Your task to perform on an android device: turn off translation in the chrome app Image 0: 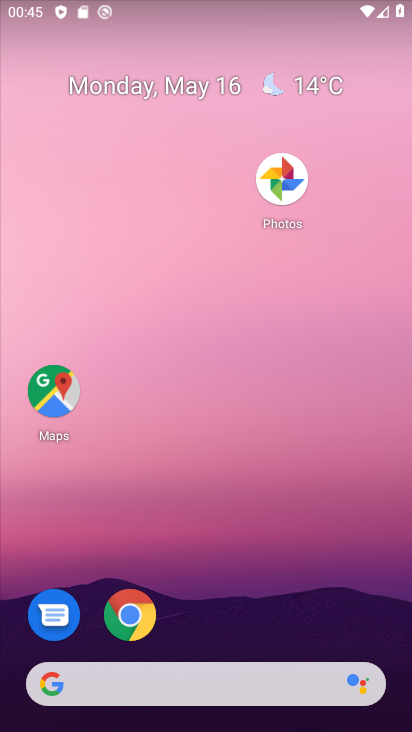
Step 0: drag from (365, 623) to (378, 160)
Your task to perform on an android device: turn off translation in the chrome app Image 1: 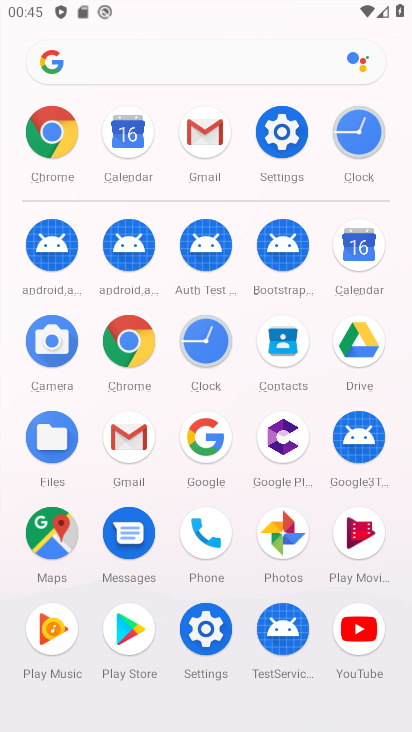
Step 1: click (127, 355)
Your task to perform on an android device: turn off translation in the chrome app Image 2: 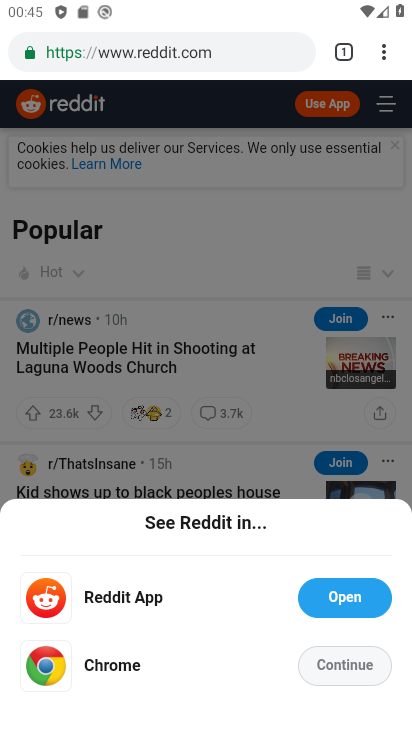
Step 2: drag from (388, 63) to (251, 645)
Your task to perform on an android device: turn off translation in the chrome app Image 3: 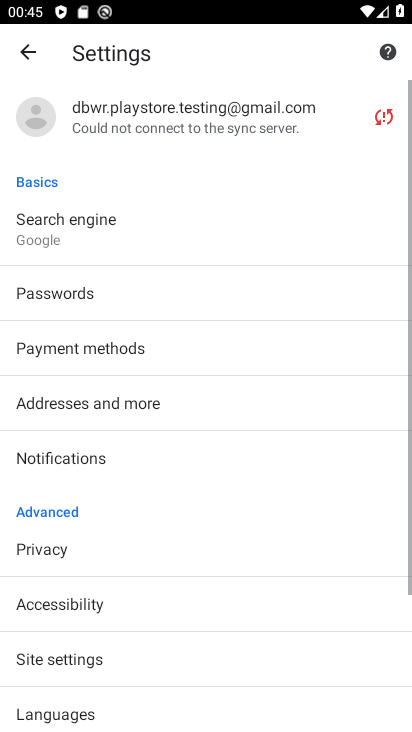
Step 3: drag from (248, 640) to (302, 228)
Your task to perform on an android device: turn off translation in the chrome app Image 4: 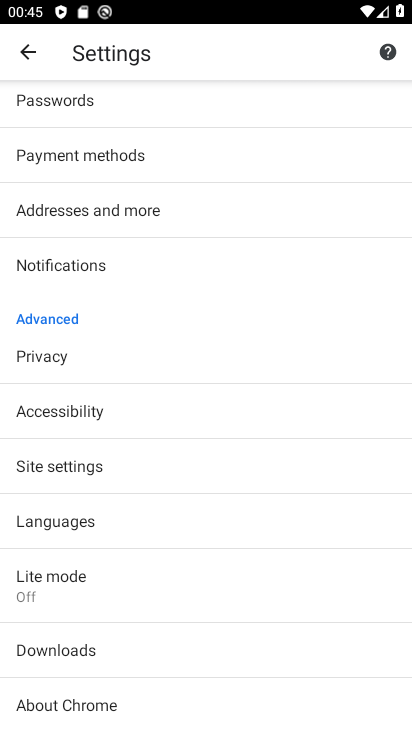
Step 4: click (89, 524)
Your task to perform on an android device: turn off translation in the chrome app Image 5: 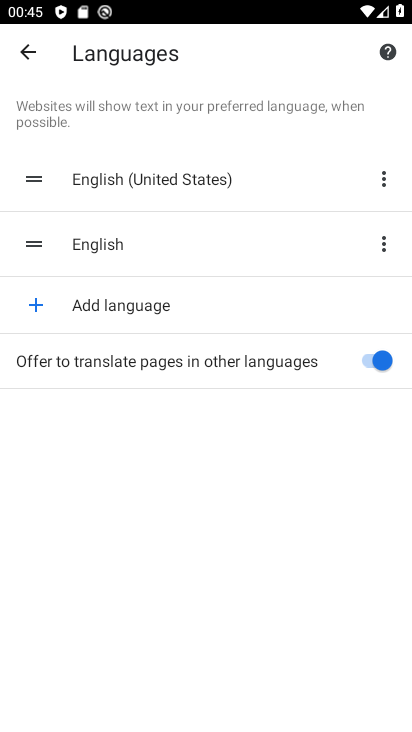
Step 5: click (363, 366)
Your task to perform on an android device: turn off translation in the chrome app Image 6: 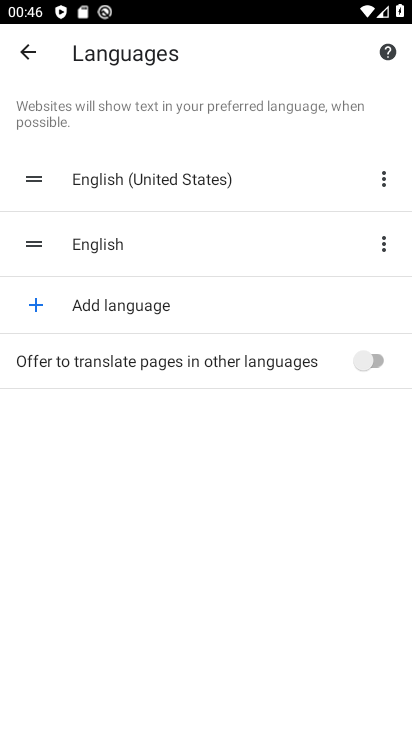
Step 6: task complete